Your task to perform on an android device: What's the weather today? Image 0: 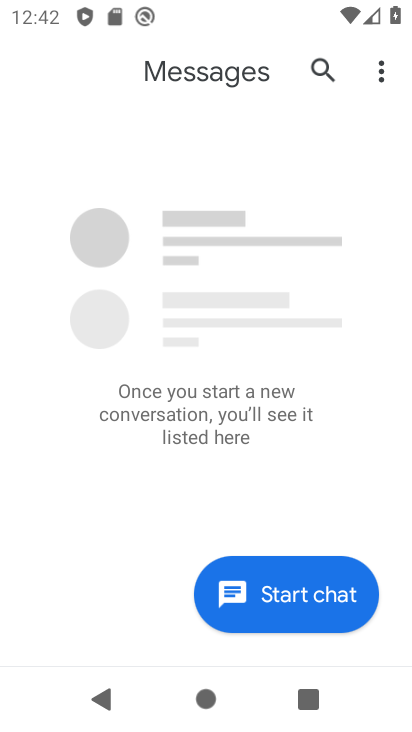
Step 0: press home button
Your task to perform on an android device: What's the weather today? Image 1: 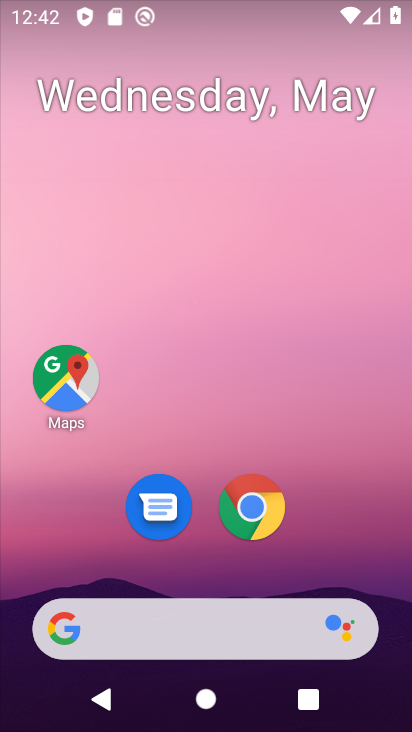
Step 1: click (193, 609)
Your task to perform on an android device: What's the weather today? Image 2: 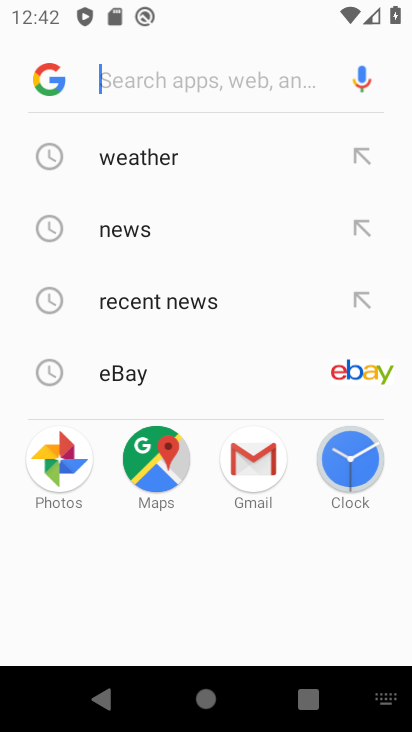
Step 2: click (142, 160)
Your task to perform on an android device: What's the weather today? Image 3: 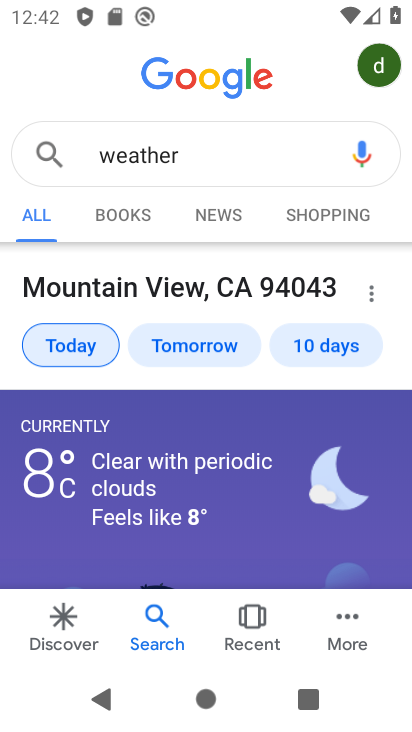
Step 3: task complete